Your task to perform on an android device: Open Reddit.com Image 0: 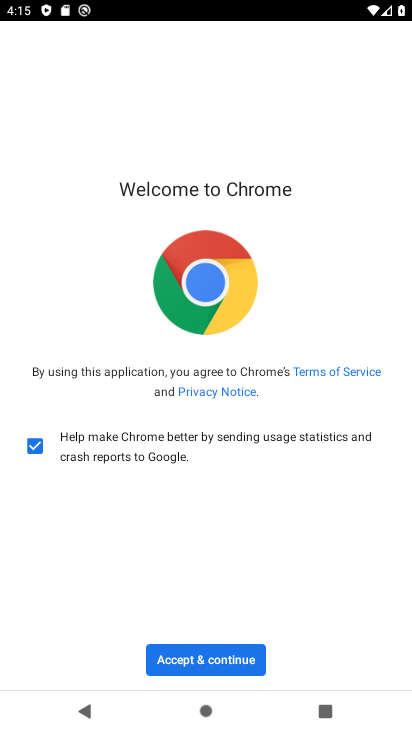
Step 0: click (207, 653)
Your task to perform on an android device: Open Reddit.com Image 1: 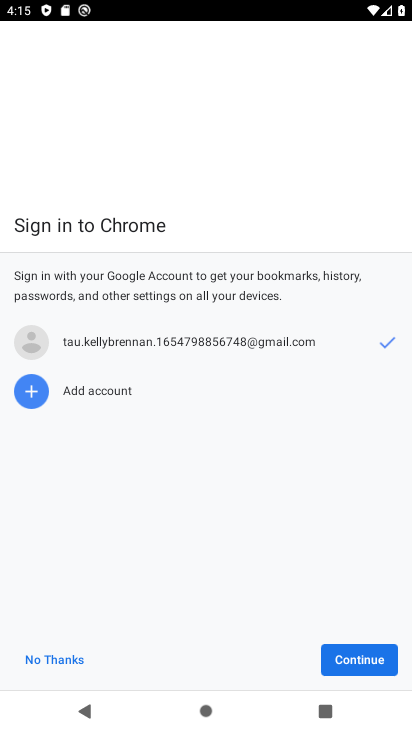
Step 1: click (356, 659)
Your task to perform on an android device: Open Reddit.com Image 2: 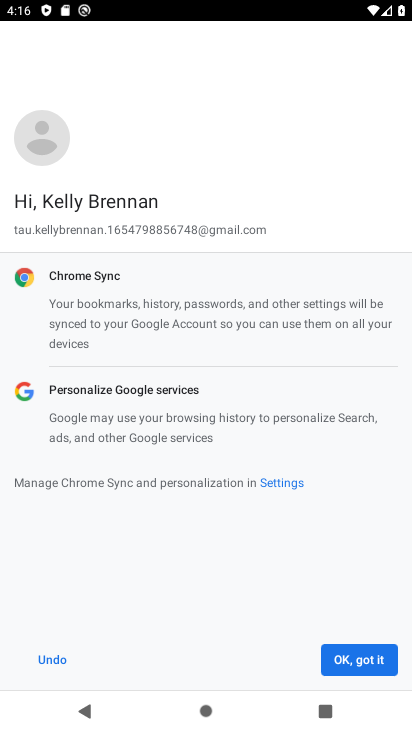
Step 2: click (366, 665)
Your task to perform on an android device: Open Reddit.com Image 3: 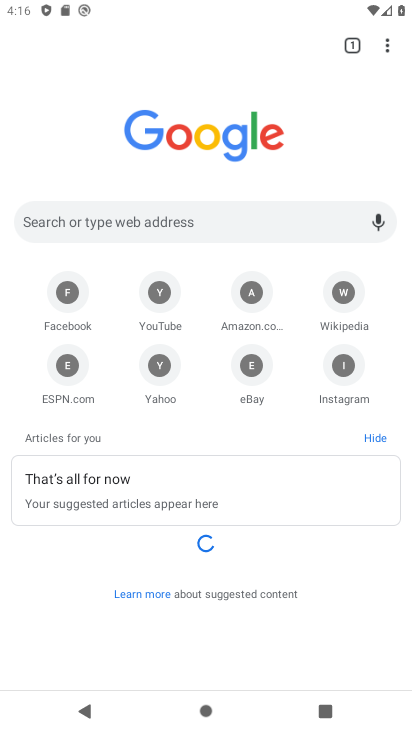
Step 3: click (119, 212)
Your task to perform on an android device: Open Reddit.com Image 4: 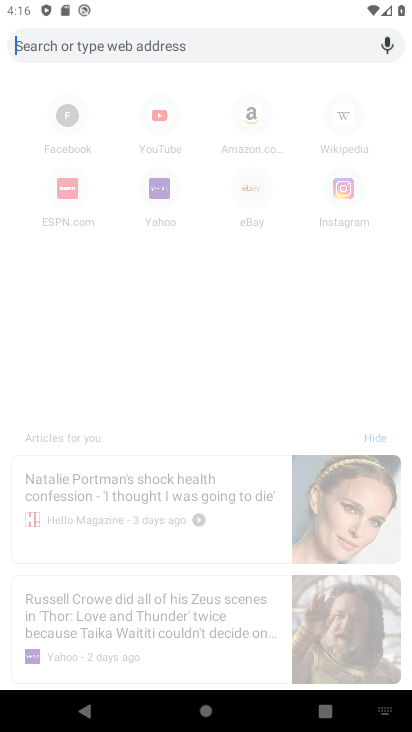
Step 4: type " Reddit.com"
Your task to perform on an android device: Open Reddit.com Image 5: 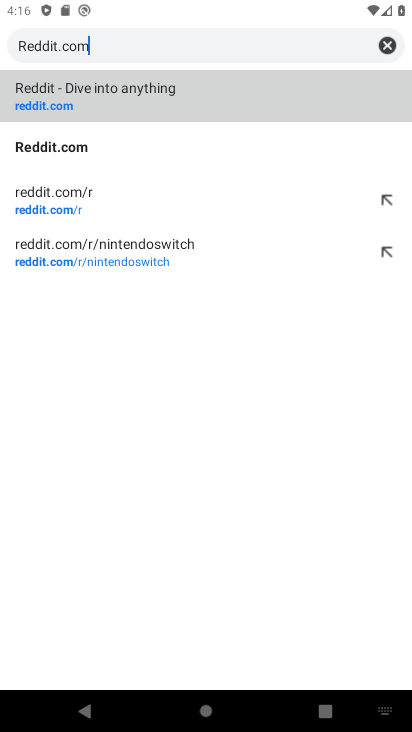
Step 5: type ""
Your task to perform on an android device: Open Reddit.com Image 6: 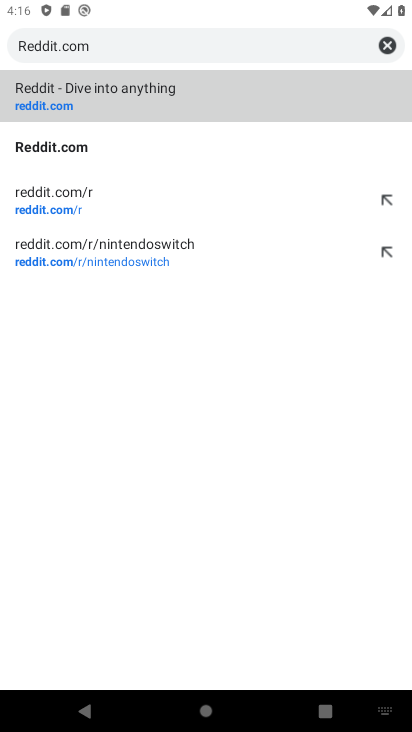
Step 6: click (89, 108)
Your task to perform on an android device: Open Reddit.com Image 7: 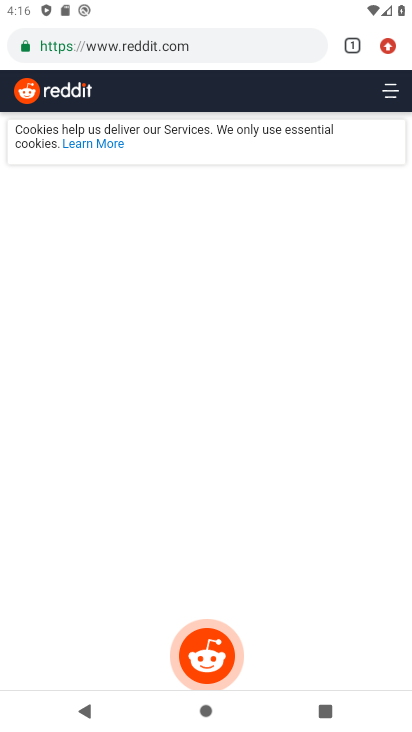
Step 7: task complete